Your task to perform on an android device: turn off smart reply in the gmail app Image 0: 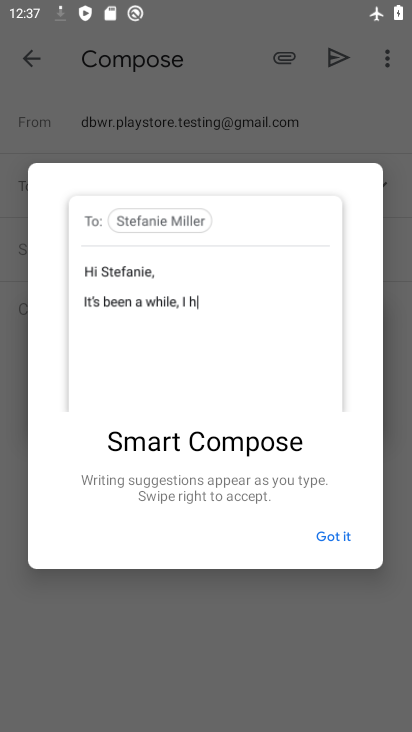
Step 0: press home button
Your task to perform on an android device: turn off smart reply in the gmail app Image 1: 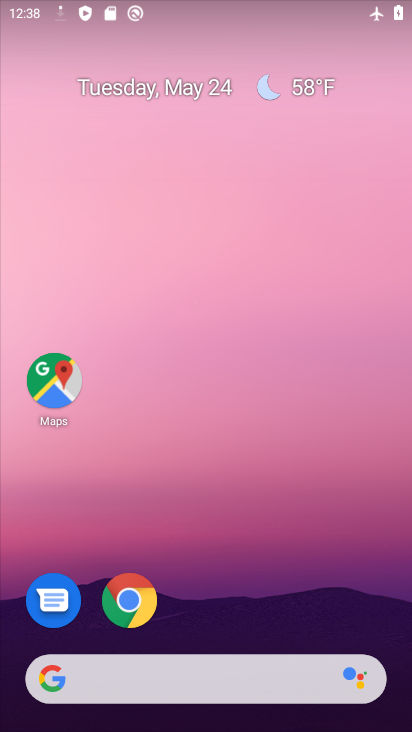
Step 1: drag from (281, 579) to (192, 8)
Your task to perform on an android device: turn off smart reply in the gmail app Image 2: 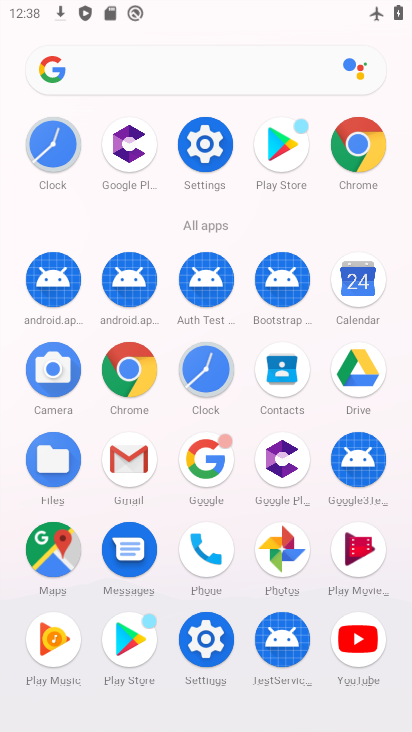
Step 2: click (136, 472)
Your task to perform on an android device: turn off smart reply in the gmail app Image 3: 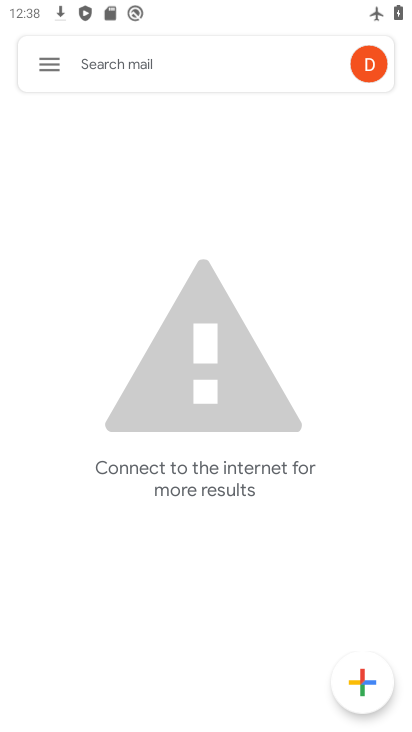
Step 3: click (50, 71)
Your task to perform on an android device: turn off smart reply in the gmail app Image 4: 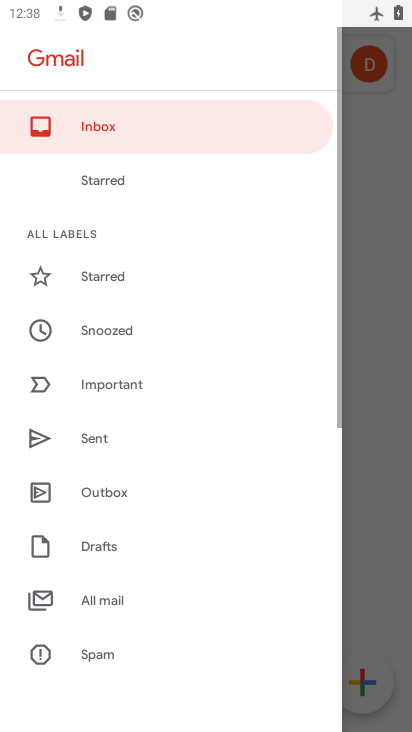
Step 4: drag from (195, 427) to (197, 91)
Your task to perform on an android device: turn off smart reply in the gmail app Image 5: 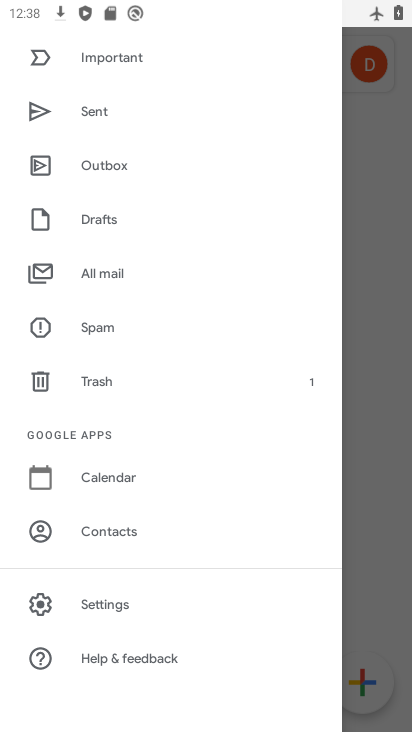
Step 5: click (154, 595)
Your task to perform on an android device: turn off smart reply in the gmail app Image 6: 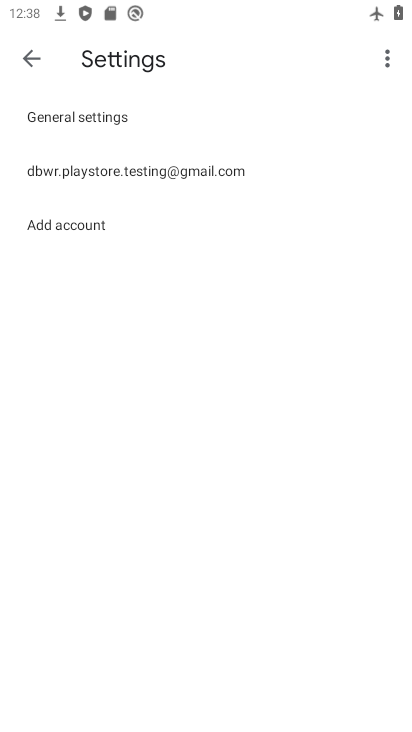
Step 6: click (129, 173)
Your task to perform on an android device: turn off smart reply in the gmail app Image 7: 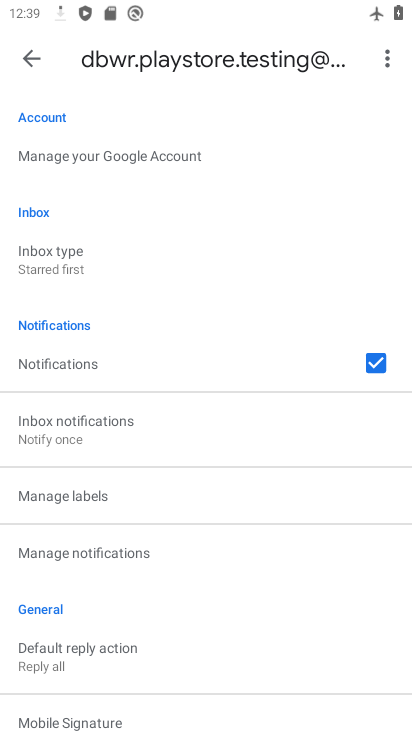
Step 7: drag from (242, 579) to (244, 113)
Your task to perform on an android device: turn off smart reply in the gmail app Image 8: 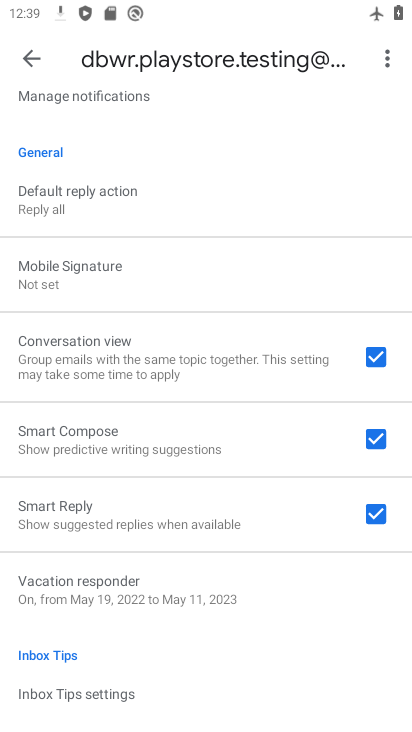
Step 8: click (372, 514)
Your task to perform on an android device: turn off smart reply in the gmail app Image 9: 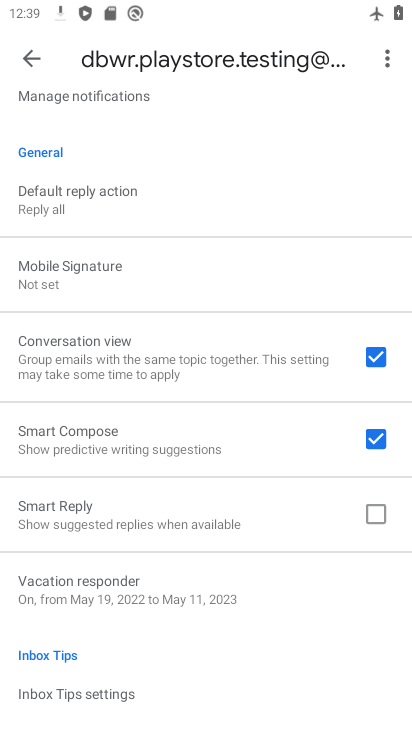
Step 9: task complete